Your task to perform on an android device: Open Maps and search for coffee Image 0: 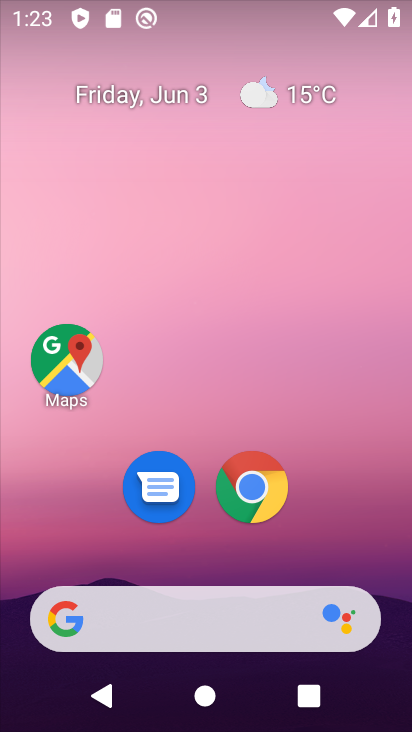
Step 0: click (74, 352)
Your task to perform on an android device: Open Maps and search for coffee Image 1: 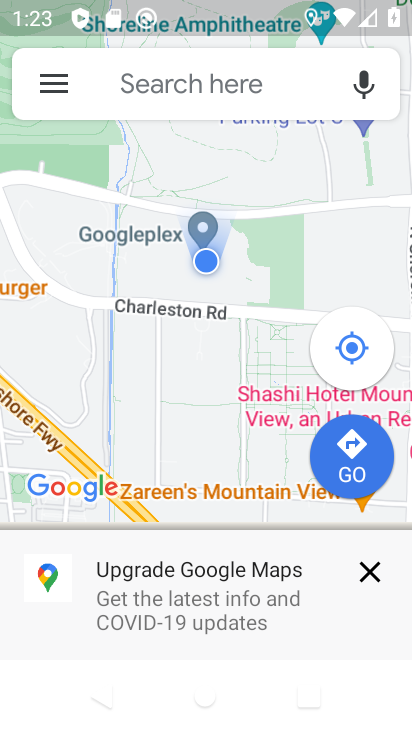
Step 1: click (189, 80)
Your task to perform on an android device: Open Maps and search for coffee Image 2: 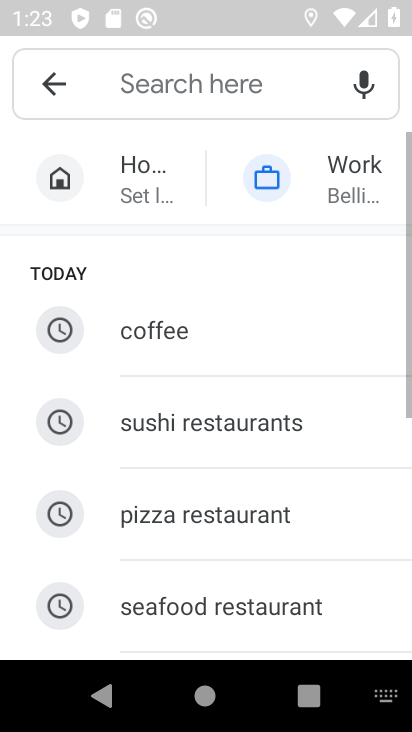
Step 2: drag from (202, 341) to (362, 246)
Your task to perform on an android device: Open Maps and search for coffee Image 3: 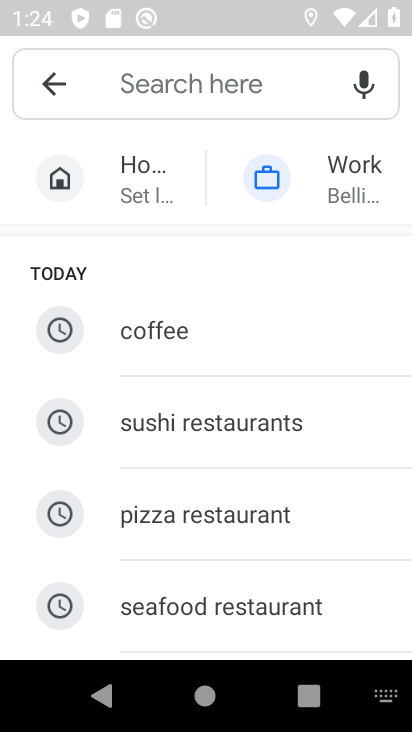
Step 3: click (165, 345)
Your task to perform on an android device: Open Maps and search for coffee Image 4: 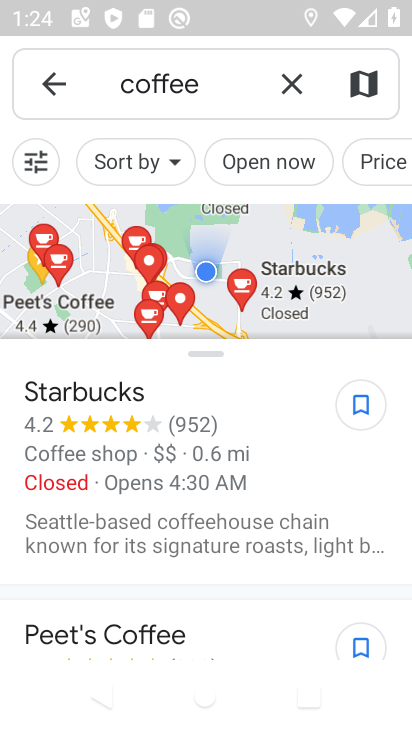
Step 4: task complete